Your task to perform on an android device: What is the news today? Image 0: 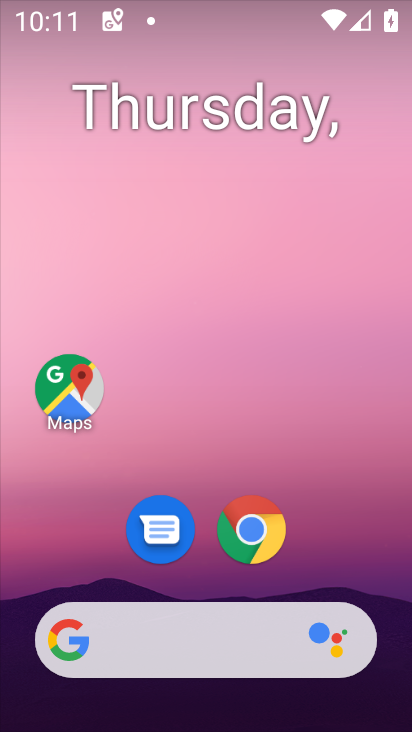
Step 0: click (180, 629)
Your task to perform on an android device: What is the news today? Image 1: 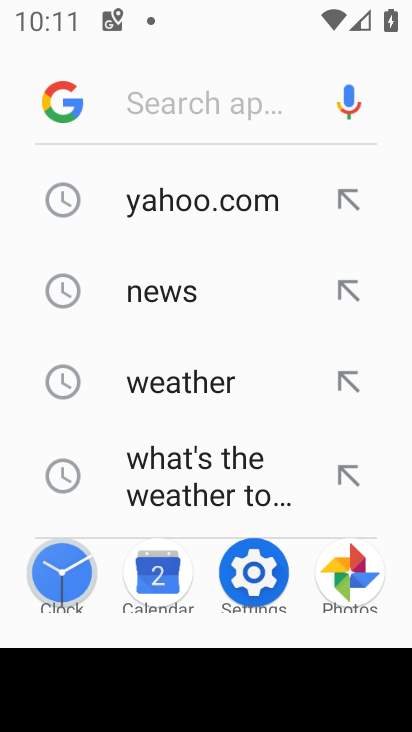
Step 1: type "What is the news today?"
Your task to perform on an android device: What is the news today? Image 2: 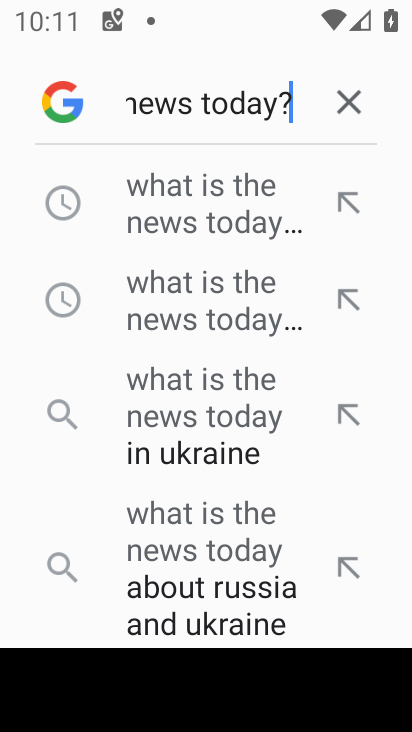
Step 2: click (240, 225)
Your task to perform on an android device: What is the news today? Image 3: 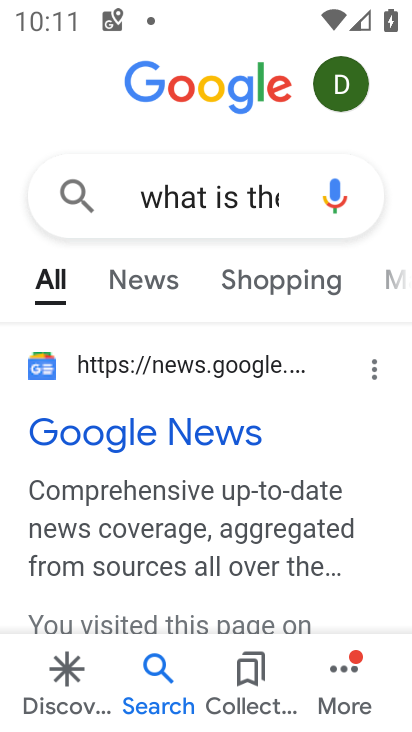
Step 3: click (210, 365)
Your task to perform on an android device: What is the news today? Image 4: 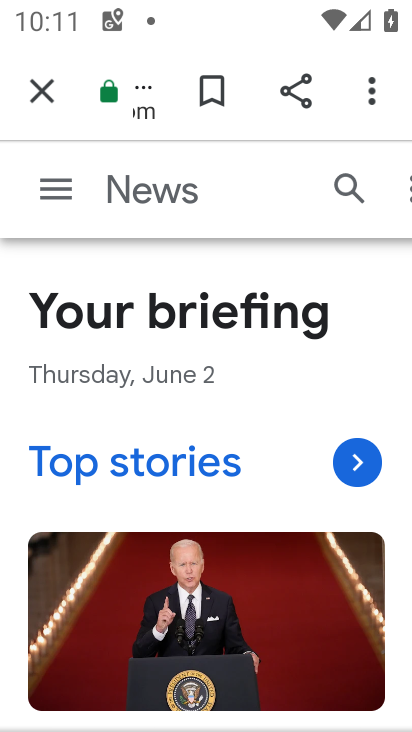
Step 4: task complete